Your task to perform on an android device: When is my next appointment? Image 0: 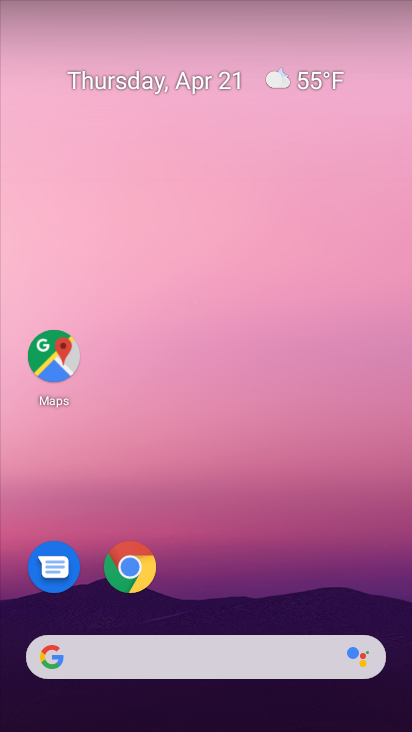
Step 0: drag from (387, 618) to (261, 126)
Your task to perform on an android device: When is my next appointment? Image 1: 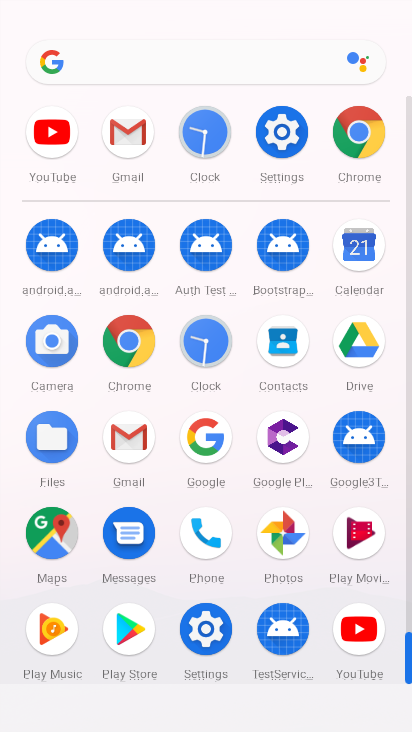
Step 1: click (359, 249)
Your task to perform on an android device: When is my next appointment? Image 2: 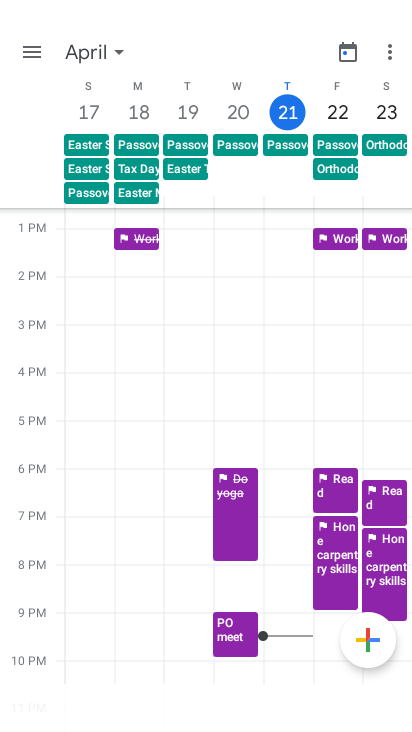
Step 2: click (35, 50)
Your task to perform on an android device: When is my next appointment? Image 3: 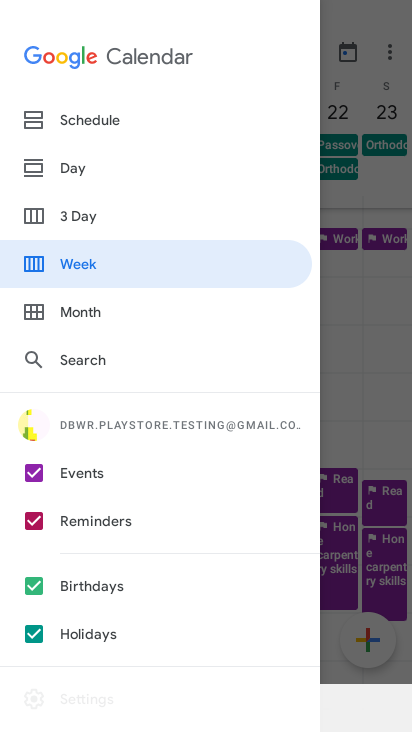
Step 3: click (89, 119)
Your task to perform on an android device: When is my next appointment? Image 4: 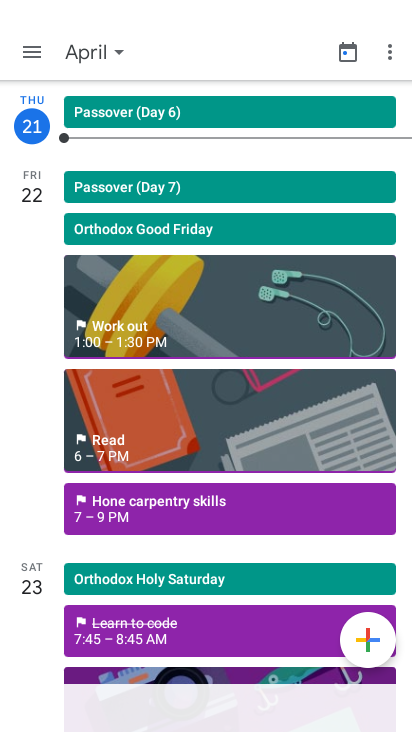
Step 4: task complete